Your task to perform on an android device: Is it going to rain today? Image 0: 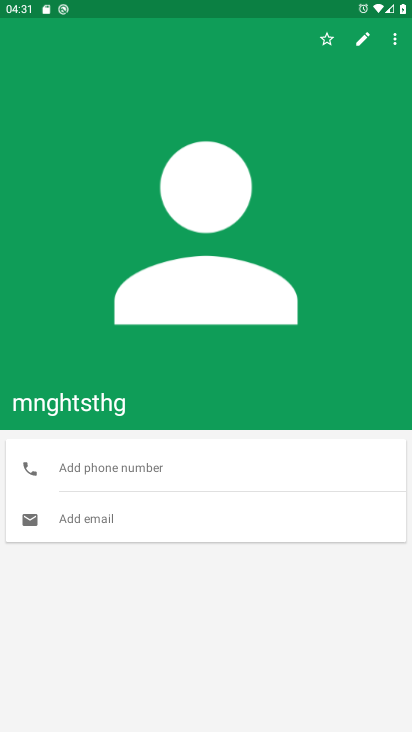
Step 0: press home button
Your task to perform on an android device: Is it going to rain today? Image 1: 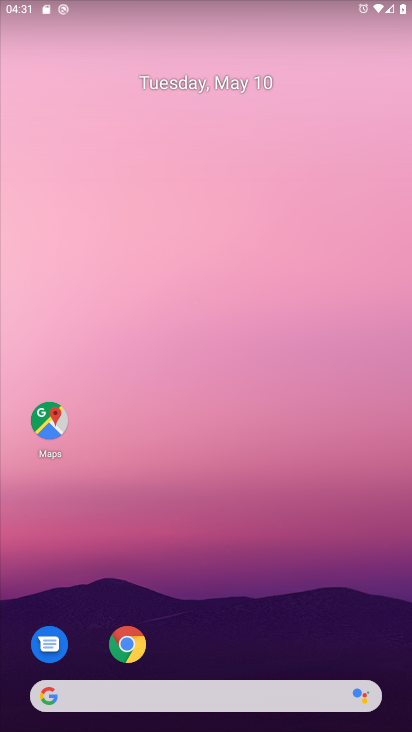
Step 1: drag from (14, 239) to (402, 243)
Your task to perform on an android device: Is it going to rain today? Image 2: 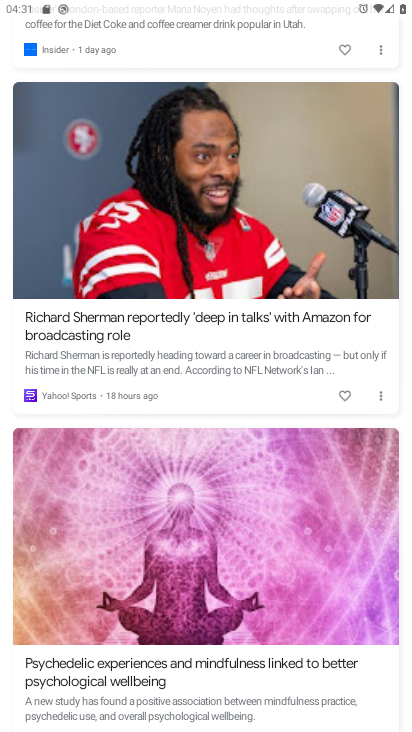
Step 2: drag from (204, 139) to (209, 707)
Your task to perform on an android device: Is it going to rain today? Image 3: 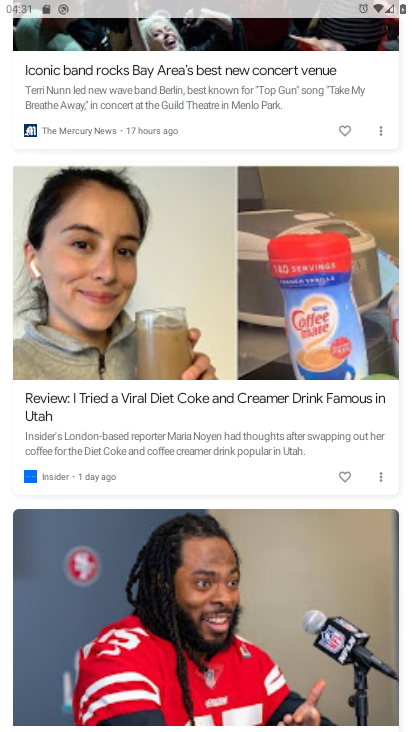
Step 3: drag from (210, 121) to (222, 723)
Your task to perform on an android device: Is it going to rain today? Image 4: 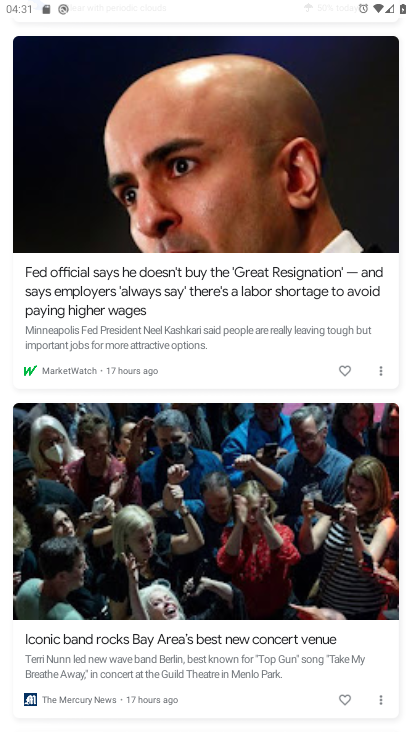
Step 4: drag from (185, 128) to (246, 681)
Your task to perform on an android device: Is it going to rain today? Image 5: 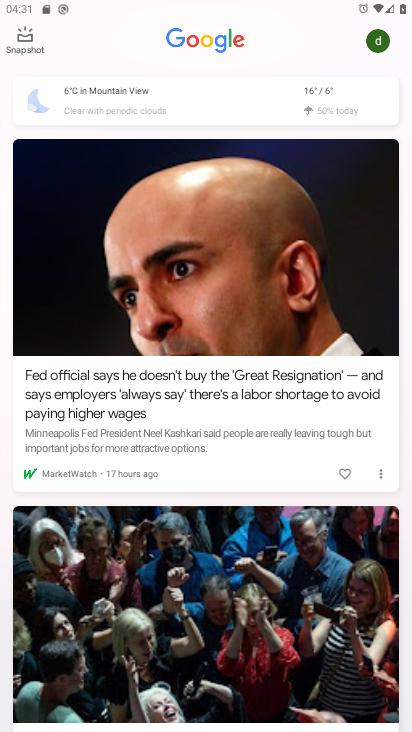
Step 5: click (258, 104)
Your task to perform on an android device: Is it going to rain today? Image 6: 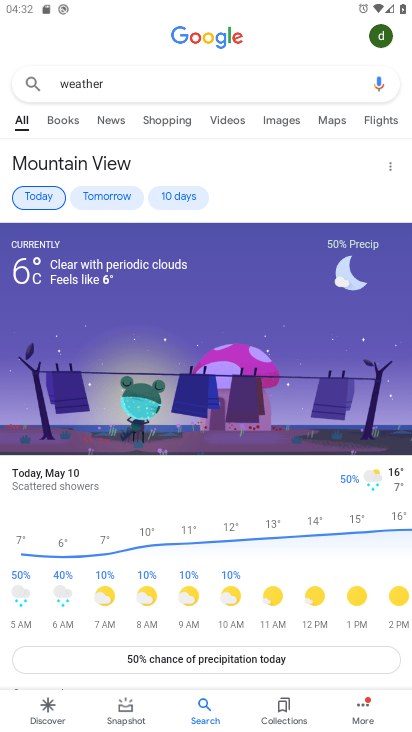
Step 6: task complete